Your task to perform on an android device: turn on airplane mode Image 0: 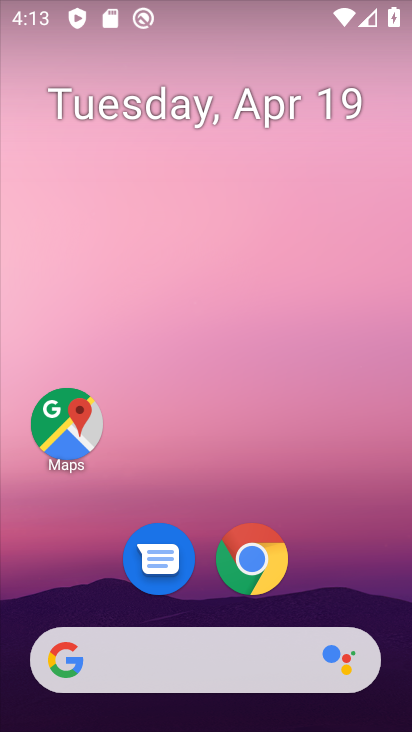
Step 0: drag from (392, 601) to (188, 80)
Your task to perform on an android device: turn on airplane mode Image 1: 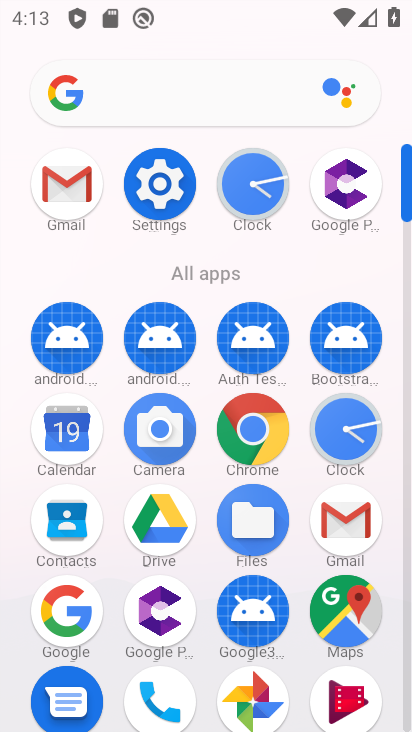
Step 1: click (171, 216)
Your task to perform on an android device: turn on airplane mode Image 2: 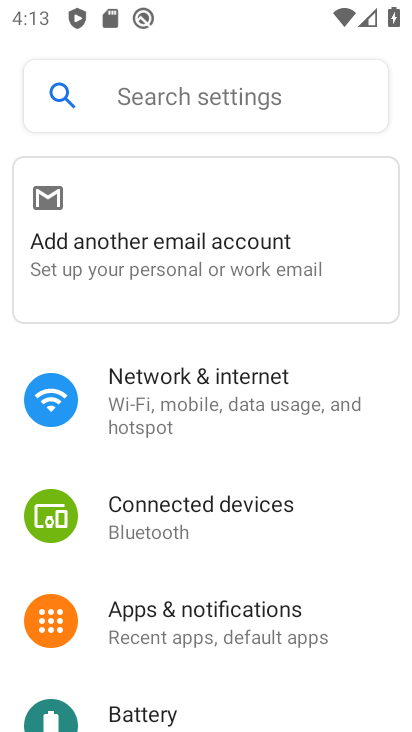
Step 2: click (183, 394)
Your task to perform on an android device: turn on airplane mode Image 3: 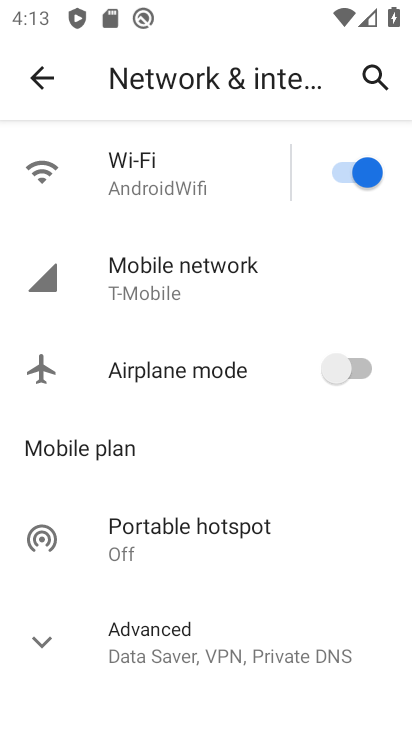
Step 3: click (233, 266)
Your task to perform on an android device: turn on airplane mode Image 4: 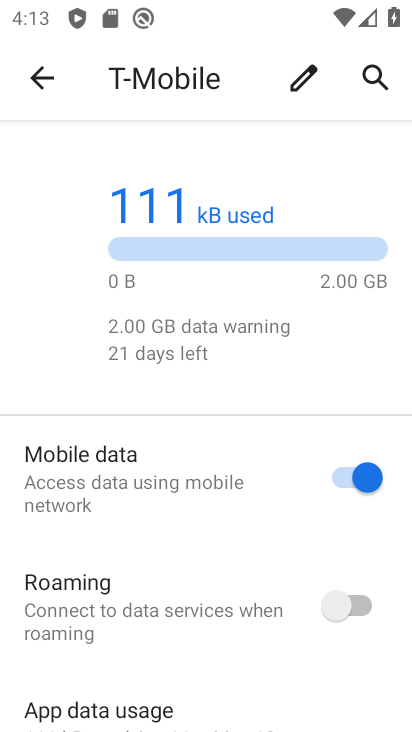
Step 4: click (28, 78)
Your task to perform on an android device: turn on airplane mode Image 5: 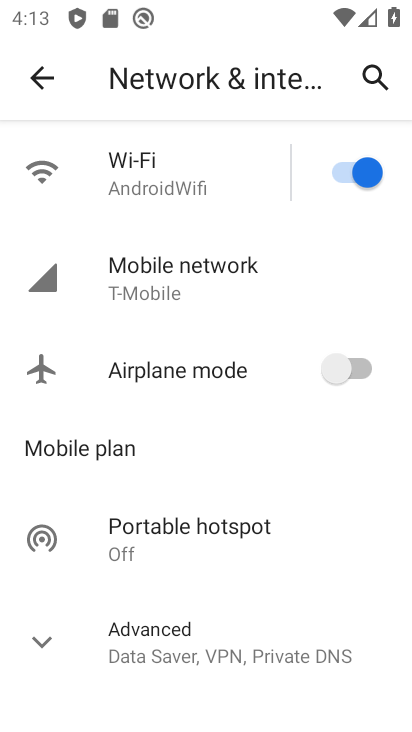
Step 5: click (333, 362)
Your task to perform on an android device: turn on airplane mode Image 6: 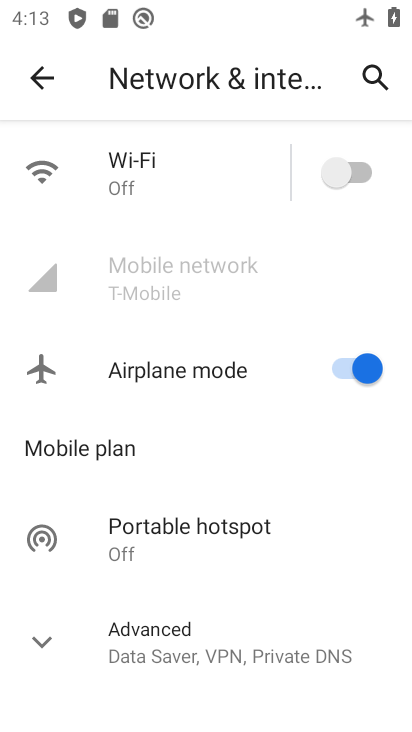
Step 6: task complete